Your task to perform on an android device: Open the map Image 0: 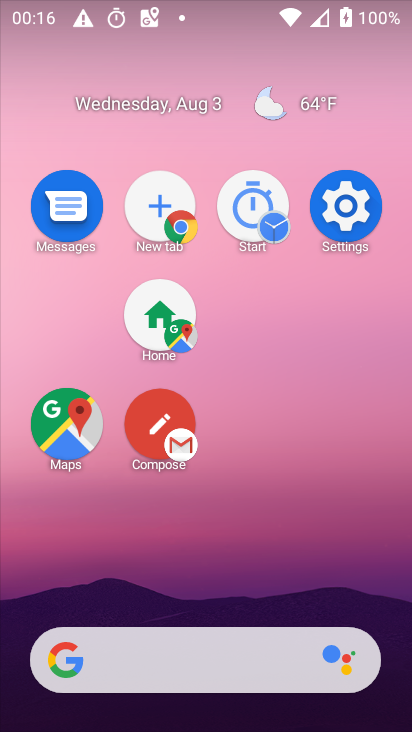
Step 0: click (74, 439)
Your task to perform on an android device: Open the map Image 1: 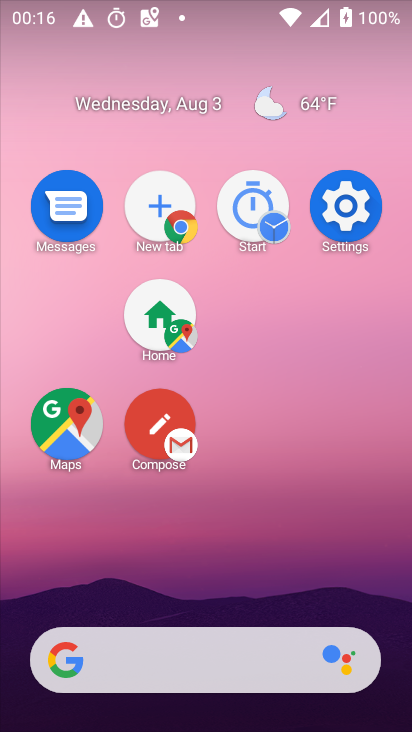
Step 1: click (76, 418)
Your task to perform on an android device: Open the map Image 2: 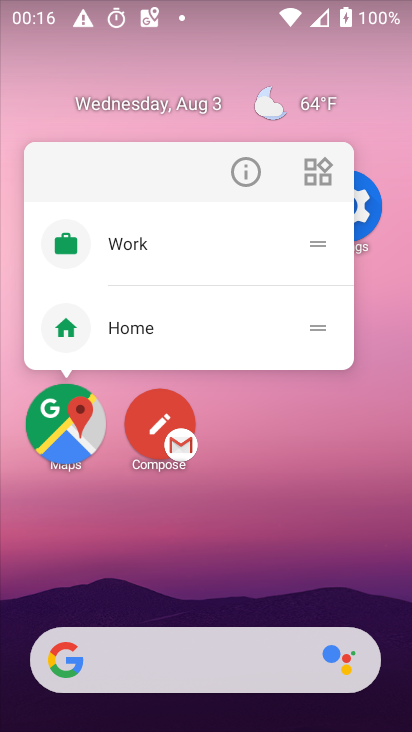
Step 2: click (56, 428)
Your task to perform on an android device: Open the map Image 3: 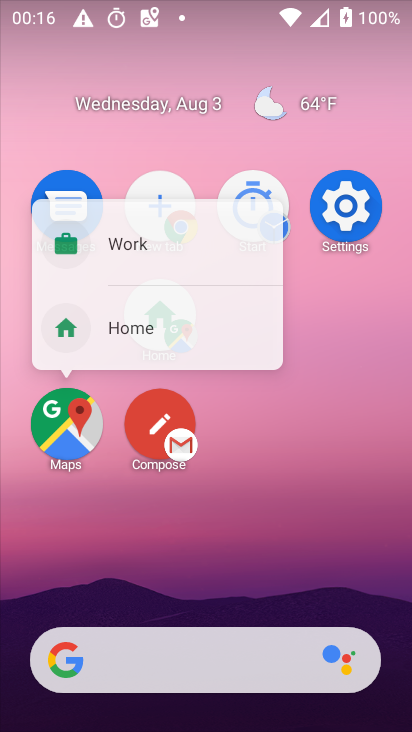
Step 3: click (57, 428)
Your task to perform on an android device: Open the map Image 4: 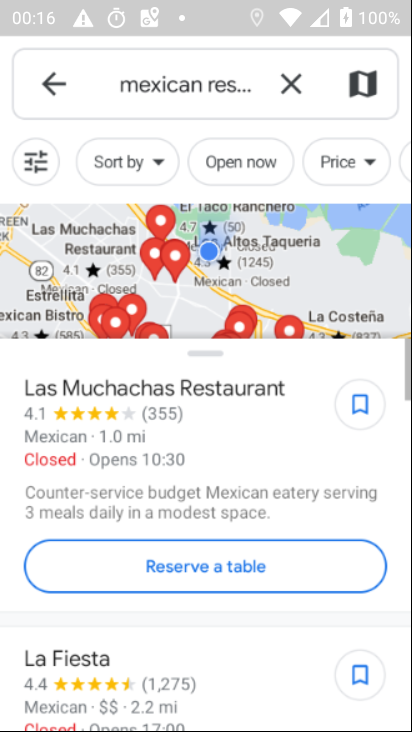
Step 4: click (72, 406)
Your task to perform on an android device: Open the map Image 5: 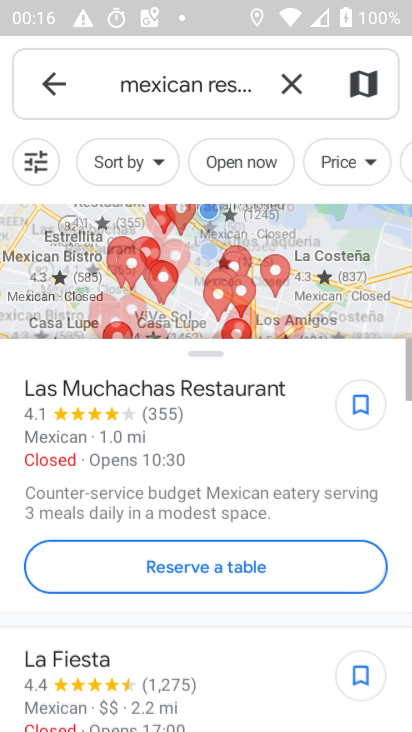
Step 5: click (72, 402)
Your task to perform on an android device: Open the map Image 6: 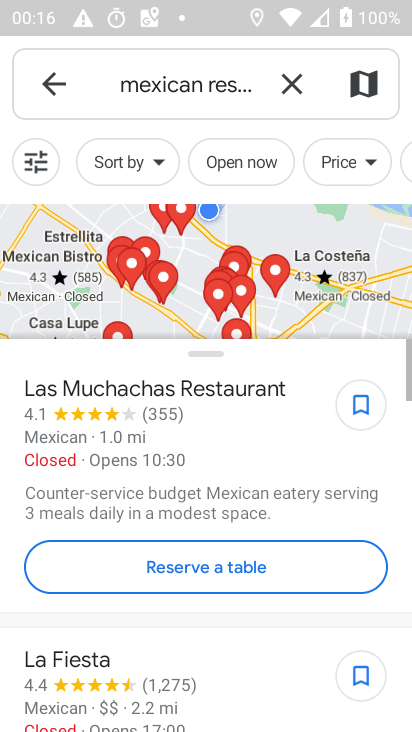
Step 6: click (72, 402)
Your task to perform on an android device: Open the map Image 7: 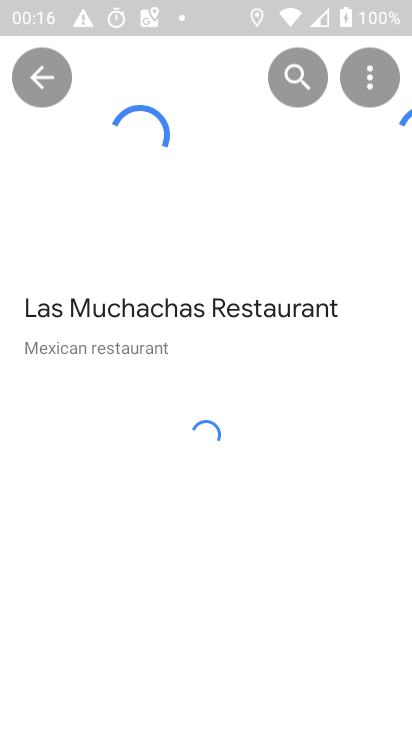
Step 7: task complete